Your task to perform on an android device: turn off location Image 0: 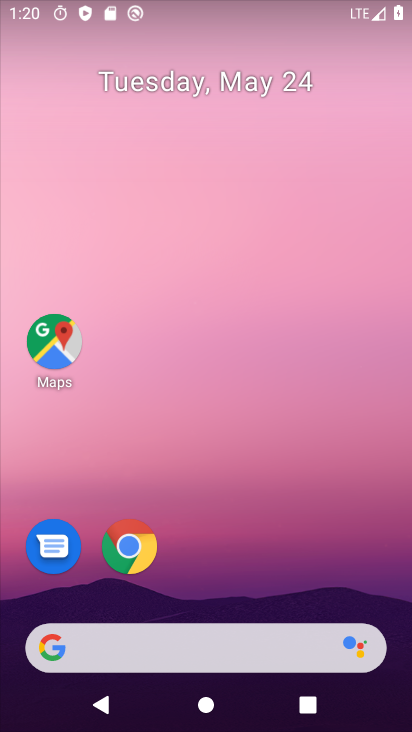
Step 0: drag from (213, 558) to (58, 6)
Your task to perform on an android device: turn off location Image 1: 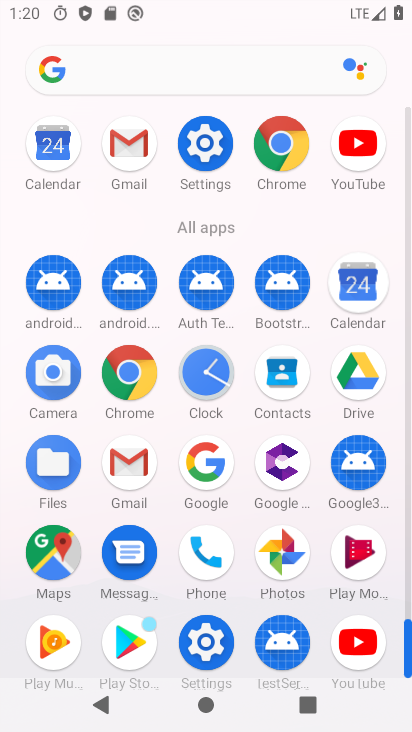
Step 1: click (200, 130)
Your task to perform on an android device: turn off location Image 2: 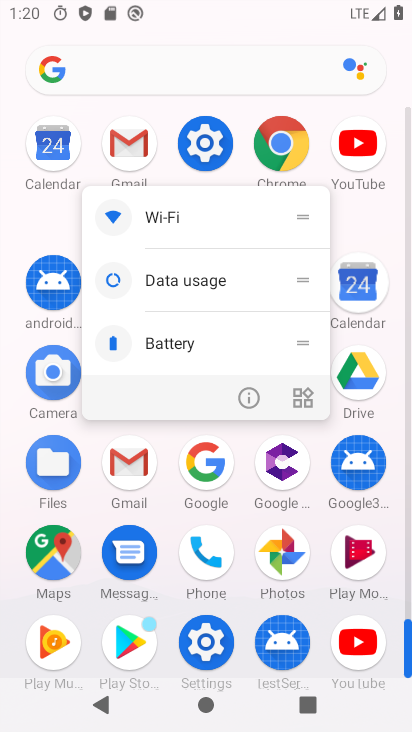
Step 2: click (255, 397)
Your task to perform on an android device: turn off location Image 3: 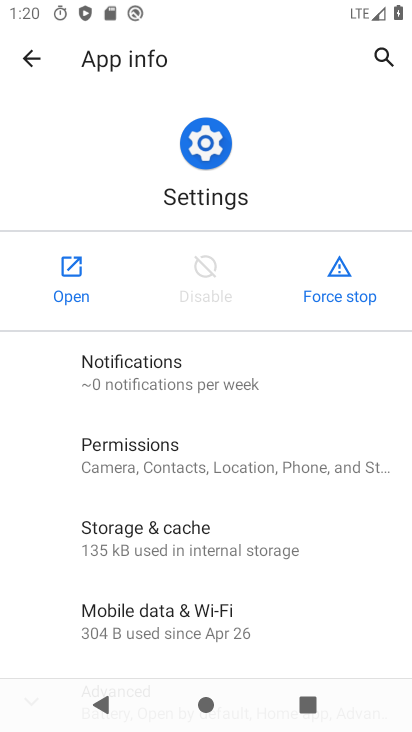
Step 3: click (83, 266)
Your task to perform on an android device: turn off location Image 4: 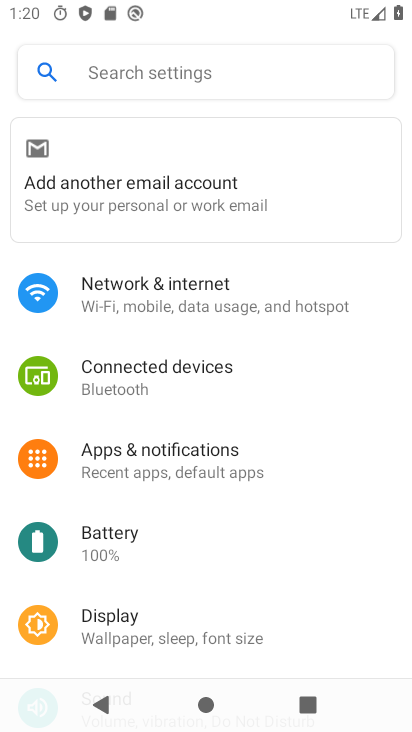
Step 4: drag from (203, 595) to (302, 5)
Your task to perform on an android device: turn off location Image 5: 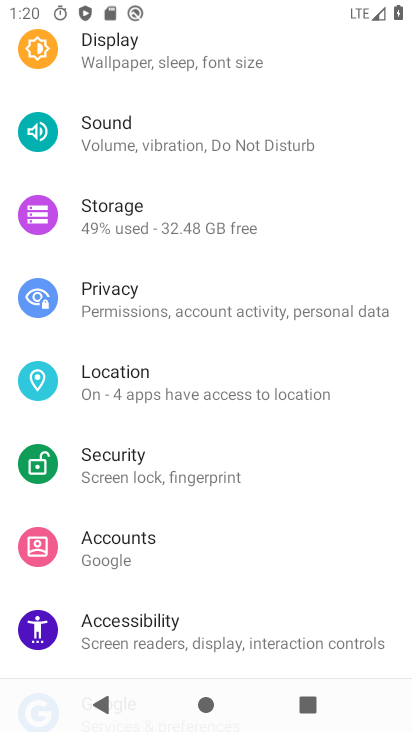
Step 5: drag from (203, 543) to (241, 284)
Your task to perform on an android device: turn off location Image 6: 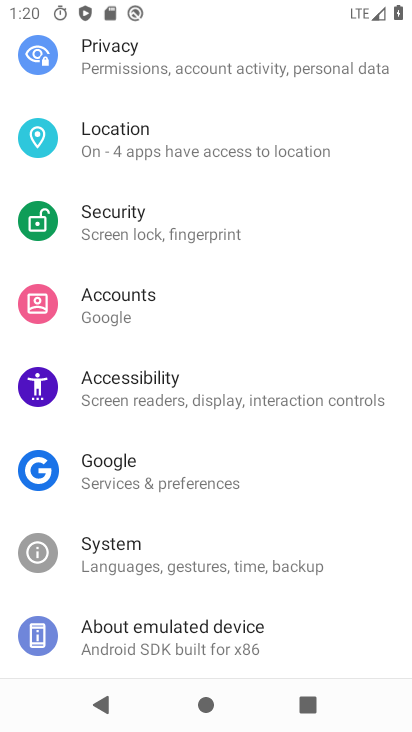
Step 6: click (214, 142)
Your task to perform on an android device: turn off location Image 7: 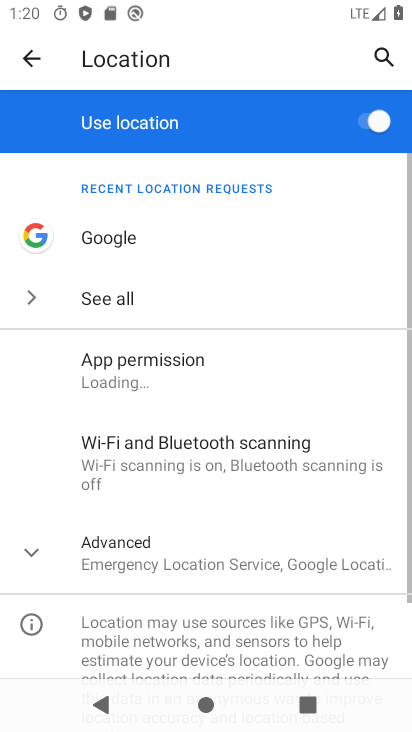
Step 7: drag from (254, 511) to (353, 152)
Your task to perform on an android device: turn off location Image 8: 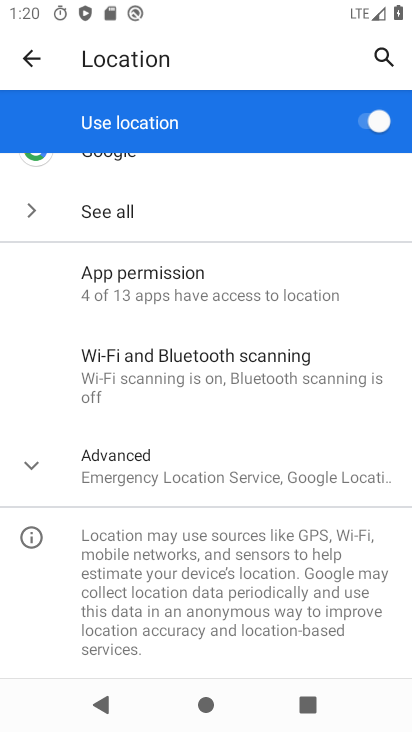
Step 8: click (148, 479)
Your task to perform on an android device: turn off location Image 9: 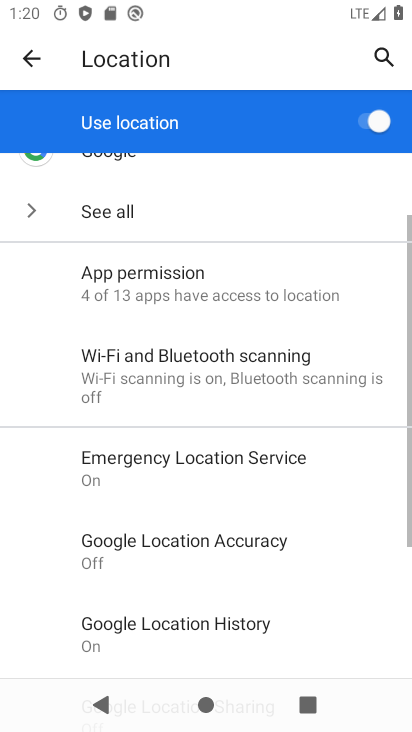
Step 9: drag from (187, 466) to (254, 243)
Your task to perform on an android device: turn off location Image 10: 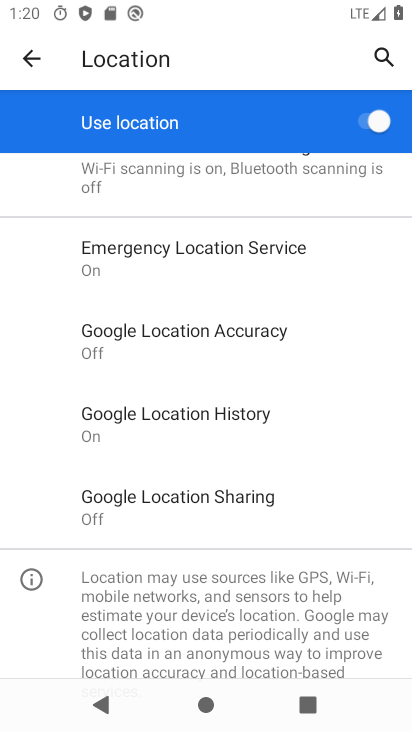
Step 10: click (388, 118)
Your task to perform on an android device: turn off location Image 11: 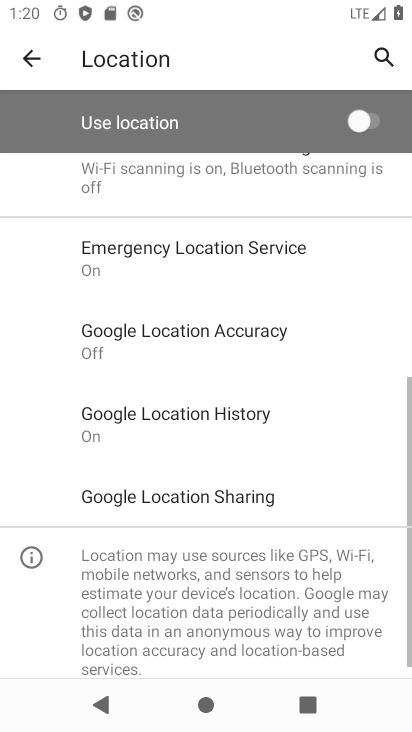
Step 11: task complete